Your task to perform on an android device: Is it going to rain tomorrow? Image 0: 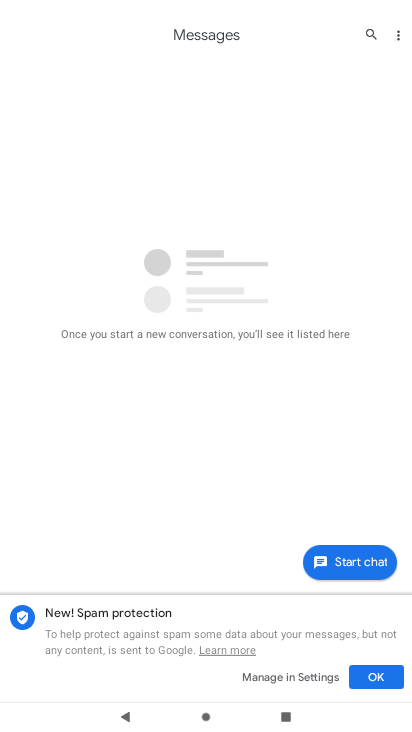
Step 0: press home button
Your task to perform on an android device: Is it going to rain tomorrow? Image 1: 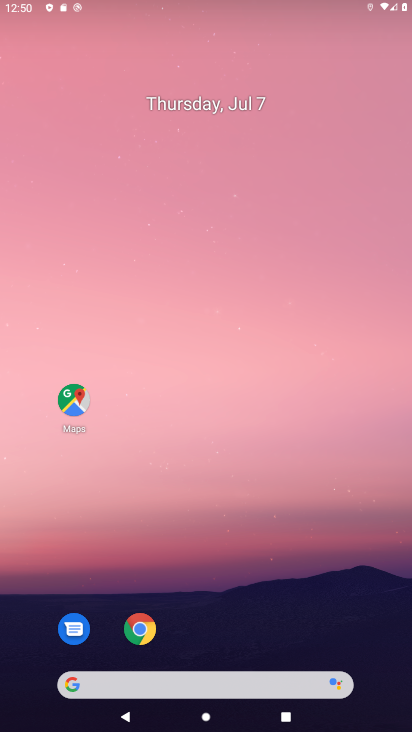
Step 1: drag from (211, 622) to (241, 113)
Your task to perform on an android device: Is it going to rain tomorrow? Image 2: 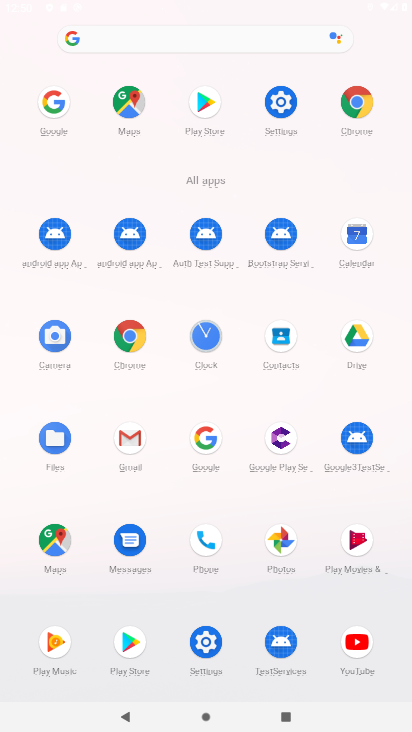
Step 2: click (54, 101)
Your task to perform on an android device: Is it going to rain tomorrow? Image 3: 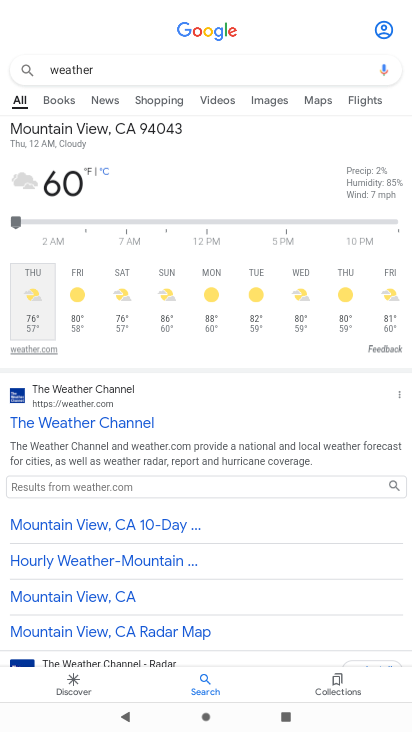
Step 3: click (229, 65)
Your task to perform on an android device: Is it going to rain tomorrow? Image 4: 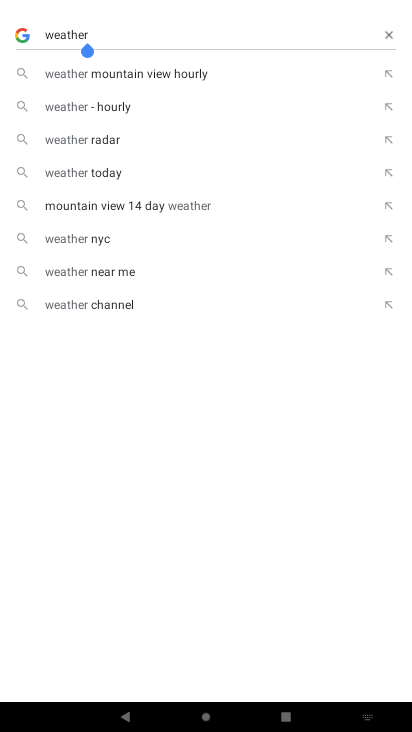
Step 4: click (386, 32)
Your task to perform on an android device: Is it going to rain tomorrow? Image 5: 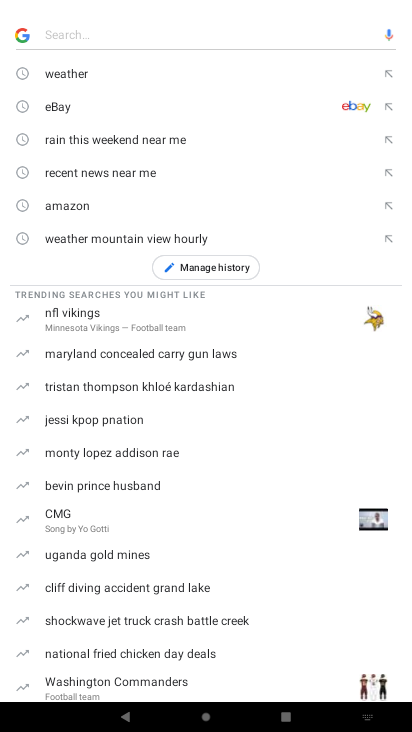
Step 5: drag from (215, 518) to (253, 587)
Your task to perform on an android device: Is it going to rain tomorrow? Image 6: 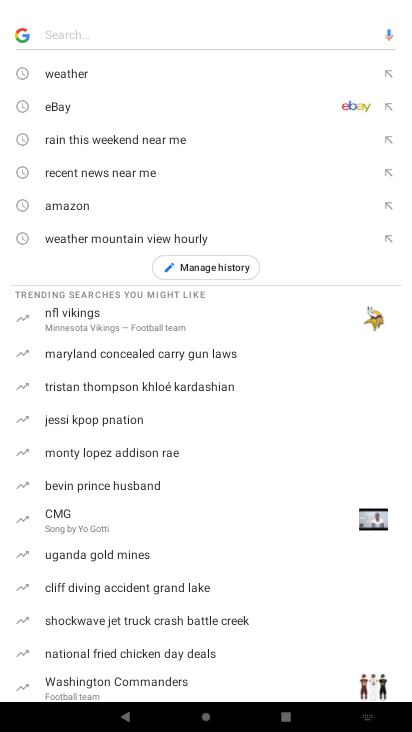
Step 6: type "is it going to rain tomorrow?"
Your task to perform on an android device: Is it going to rain tomorrow? Image 7: 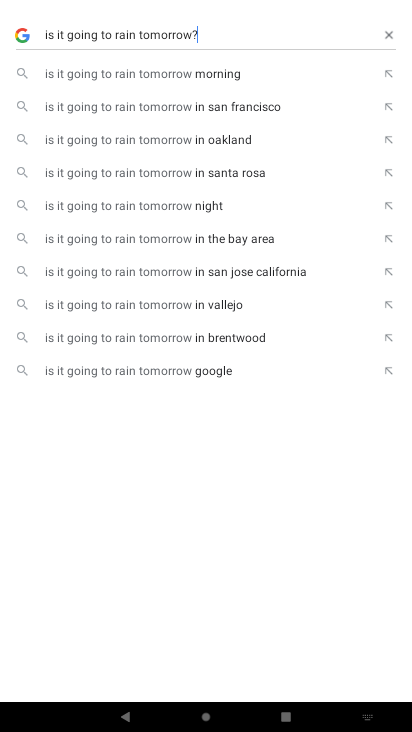
Step 7: task complete